Your task to perform on an android device: turn on wifi Image 0: 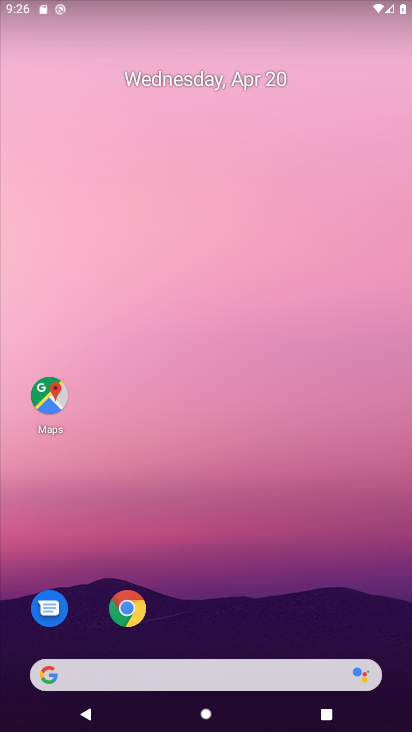
Step 0: drag from (195, 588) to (284, 3)
Your task to perform on an android device: turn on wifi Image 1: 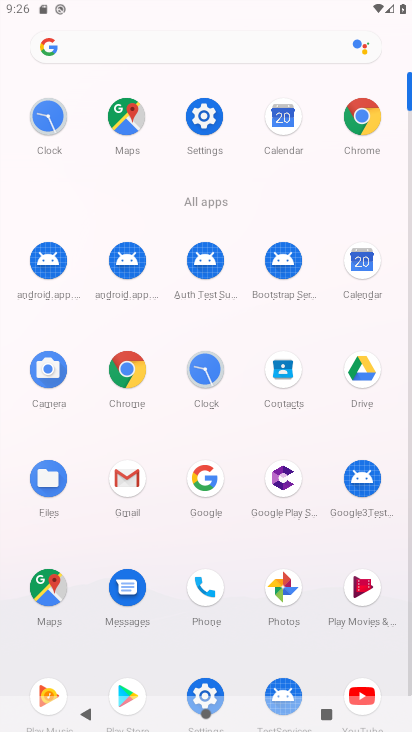
Step 1: click (212, 133)
Your task to perform on an android device: turn on wifi Image 2: 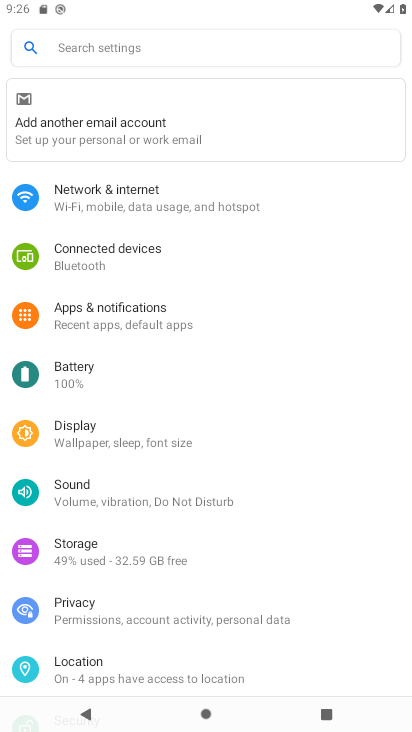
Step 2: click (183, 195)
Your task to perform on an android device: turn on wifi Image 3: 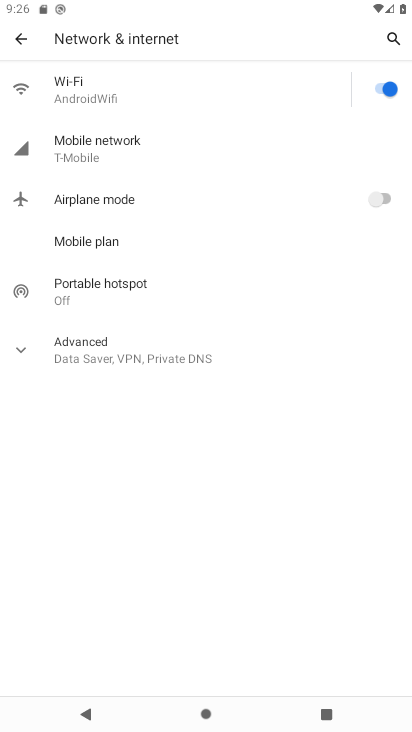
Step 3: task complete